Your task to perform on an android device: Open calendar and show me the second week of next month Image 0: 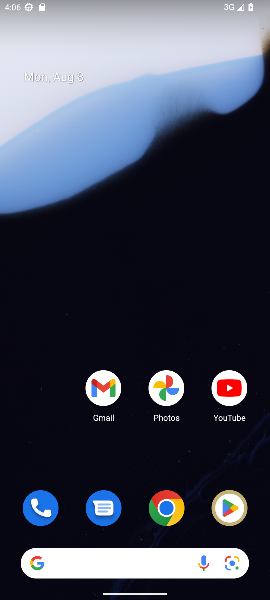
Step 0: drag from (135, 469) to (120, 78)
Your task to perform on an android device: Open calendar and show me the second week of next month Image 1: 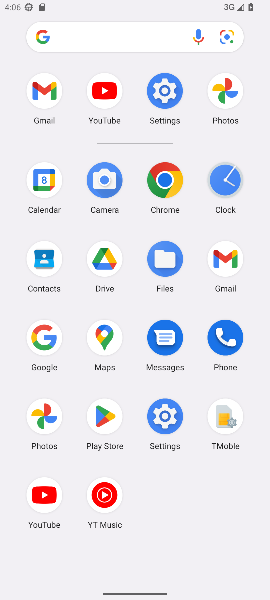
Step 1: click (42, 182)
Your task to perform on an android device: Open calendar and show me the second week of next month Image 2: 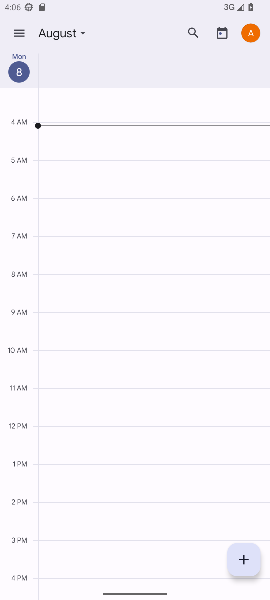
Step 2: click (19, 32)
Your task to perform on an android device: Open calendar and show me the second week of next month Image 3: 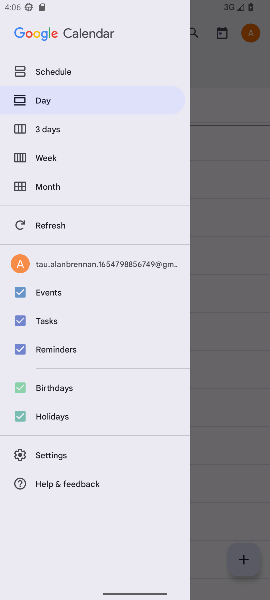
Step 3: click (48, 155)
Your task to perform on an android device: Open calendar and show me the second week of next month Image 4: 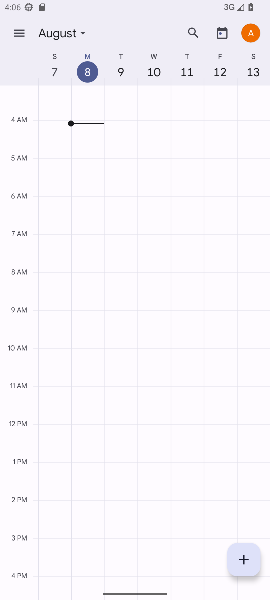
Step 4: click (84, 28)
Your task to perform on an android device: Open calendar and show me the second week of next month Image 5: 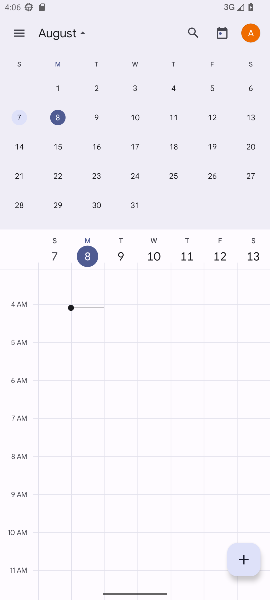
Step 5: drag from (250, 129) to (6, 163)
Your task to perform on an android device: Open calendar and show me the second week of next month Image 6: 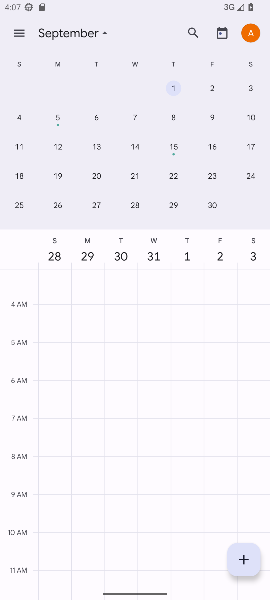
Step 6: click (96, 115)
Your task to perform on an android device: Open calendar and show me the second week of next month Image 7: 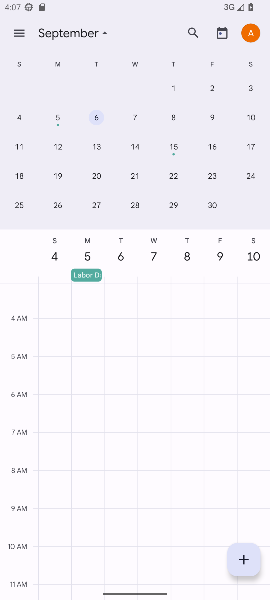
Step 7: task complete